Your task to perform on an android device: Go to ESPN.com Image 0: 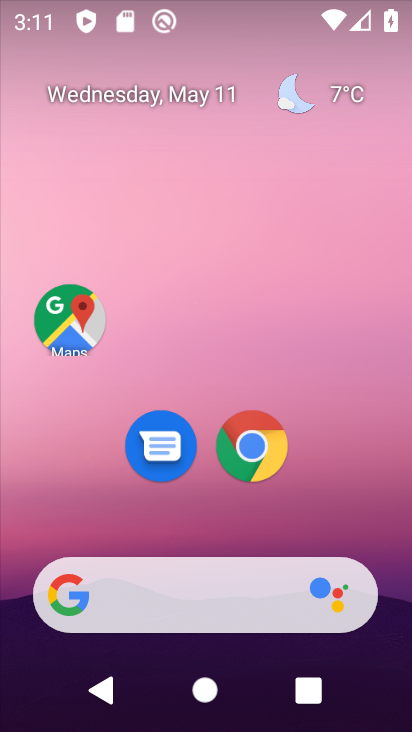
Step 0: drag from (298, 264) to (226, 68)
Your task to perform on an android device: Go to ESPN.com Image 1: 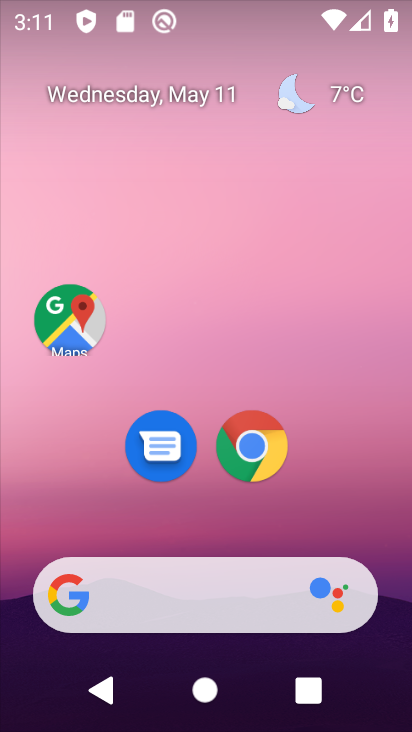
Step 1: drag from (341, 479) to (264, 249)
Your task to perform on an android device: Go to ESPN.com Image 2: 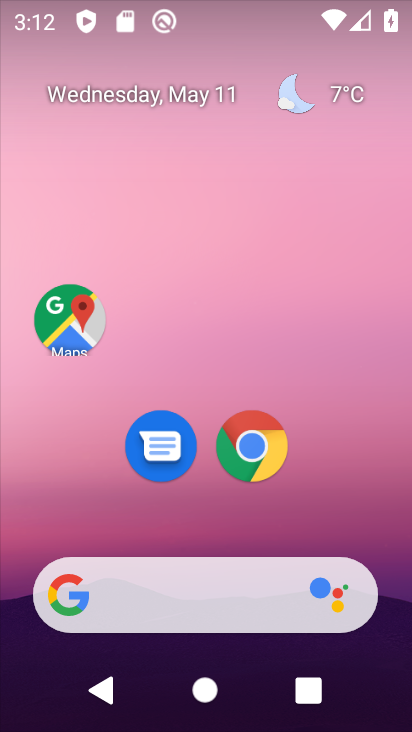
Step 2: drag from (368, 551) to (213, 85)
Your task to perform on an android device: Go to ESPN.com Image 3: 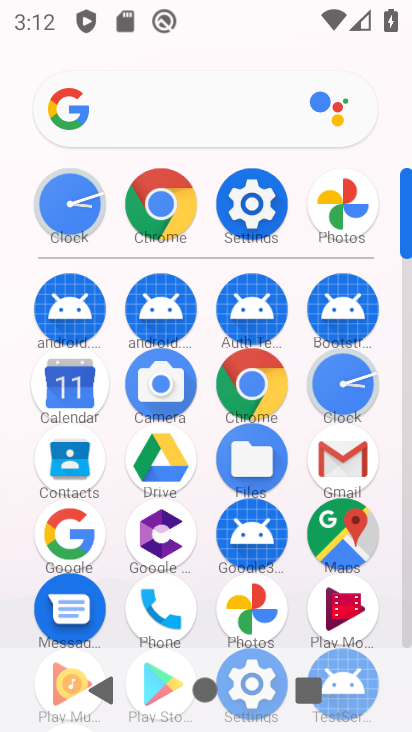
Step 3: click (143, 214)
Your task to perform on an android device: Go to ESPN.com Image 4: 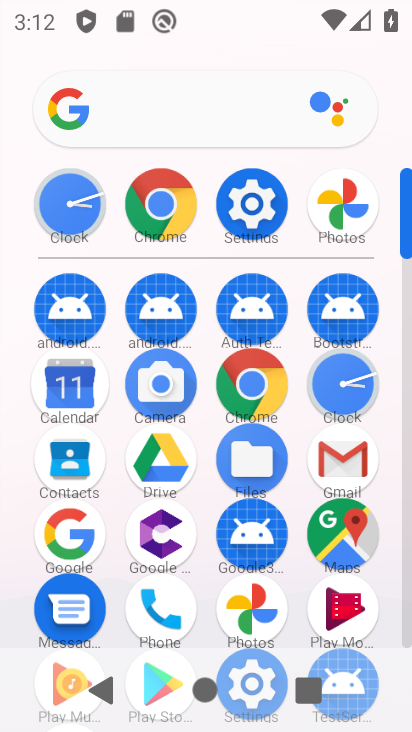
Step 4: click (143, 214)
Your task to perform on an android device: Go to ESPN.com Image 5: 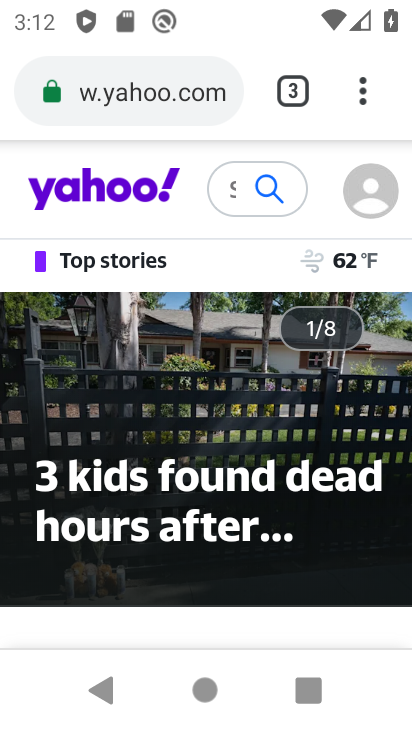
Step 5: click (360, 83)
Your task to perform on an android device: Go to ESPN.com Image 6: 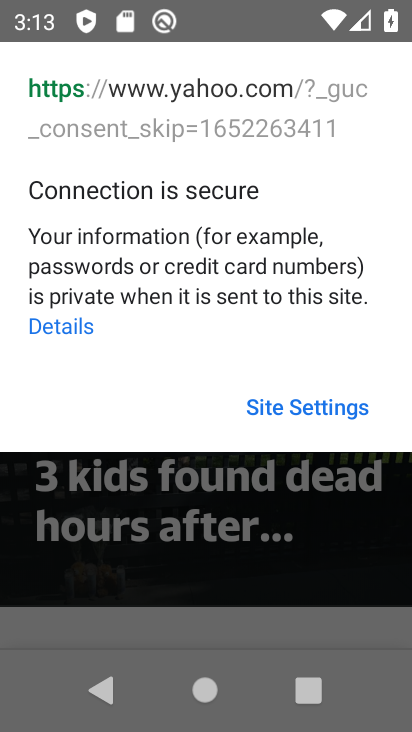
Step 6: press home button
Your task to perform on an android device: Go to ESPN.com Image 7: 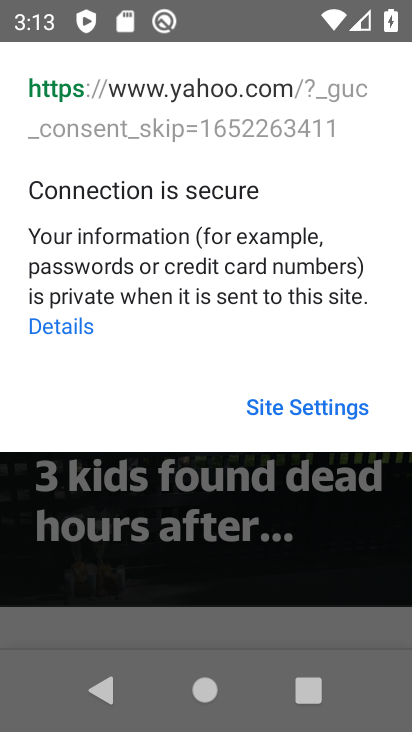
Step 7: press home button
Your task to perform on an android device: Go to ESPN.com Image 8: 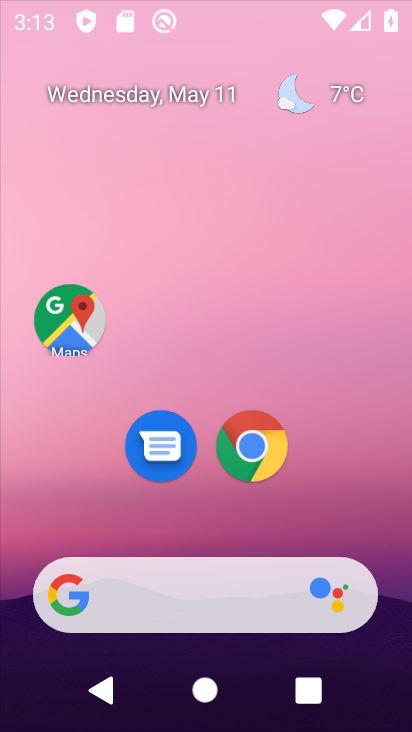
Step 8: press home button
Your task to perform on an android device: Go to ESPN.com Image 9: 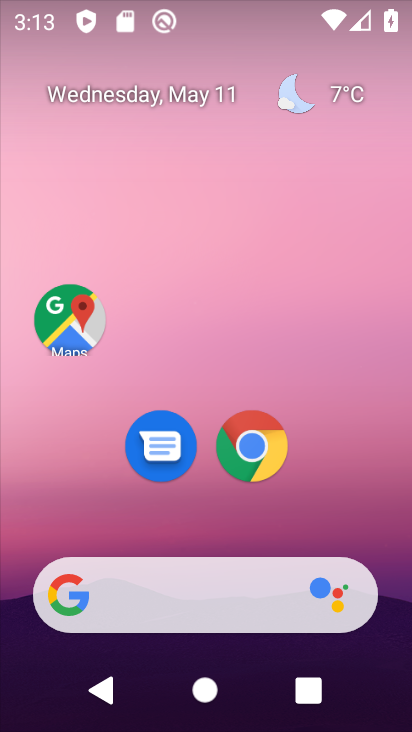
Step 9: click (115, 0)
Your task to perform on an android device: Go to ESPN.com Image 10: 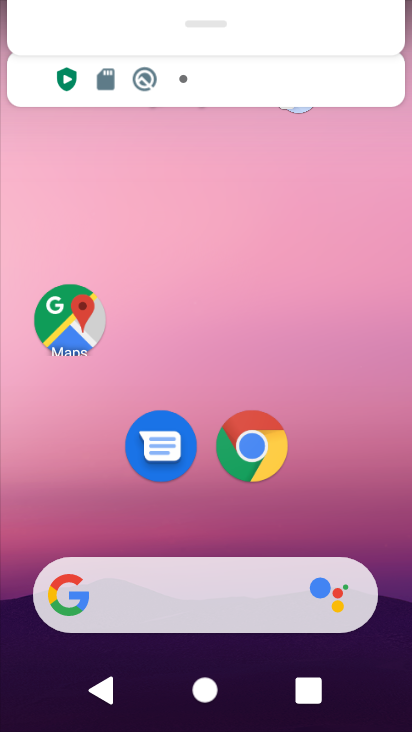
Step 10: drag from (293, 463) to (112, 81)
Your task to perform on an android device: Go to ESPN.com Image 11: 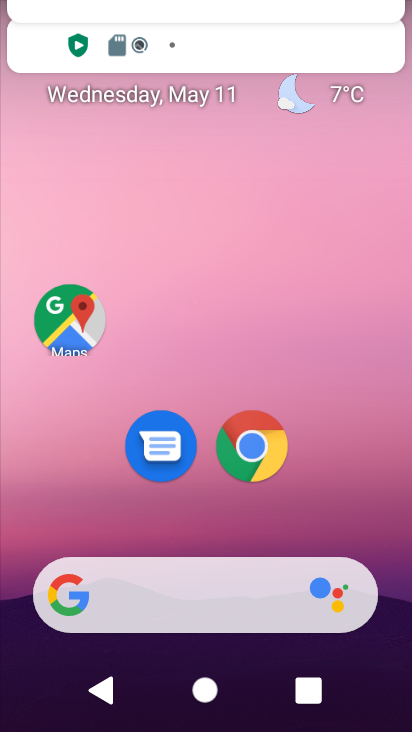
Step 11: drag from (276, 451) to (138, 165)
Your task to perform on an android device: Go to ESPN.com Image 12: 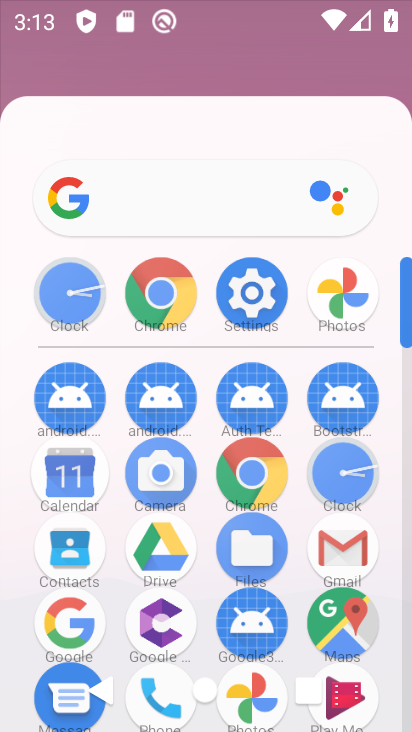
Step 12: drag from (336, 465) to (126, 100)
Your task to perform on an android device: Go to ESPN.com Image 13: 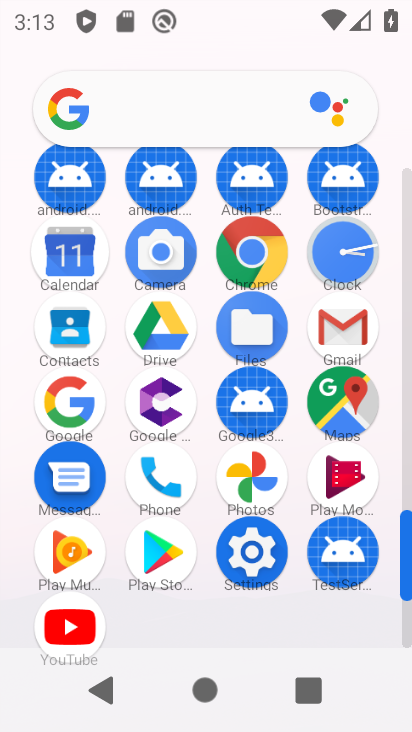
Step 13: click (240, 256)
Your task to perform on an android device: Go to ESPN.com Image 14: 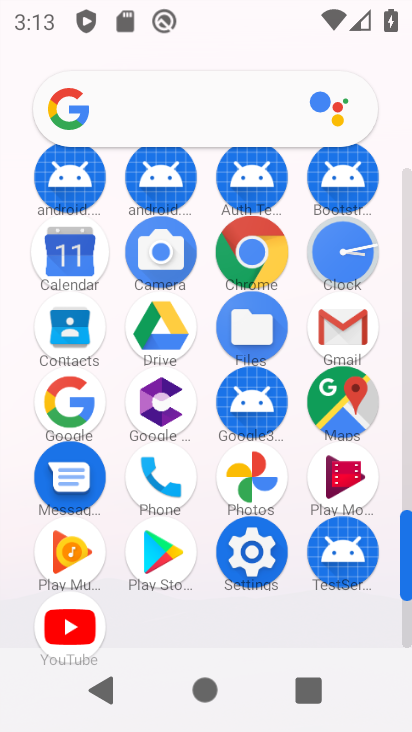
Step 14: click (239, 253)
Your task to perform on an android device: Go to ESPN.com Image 15: 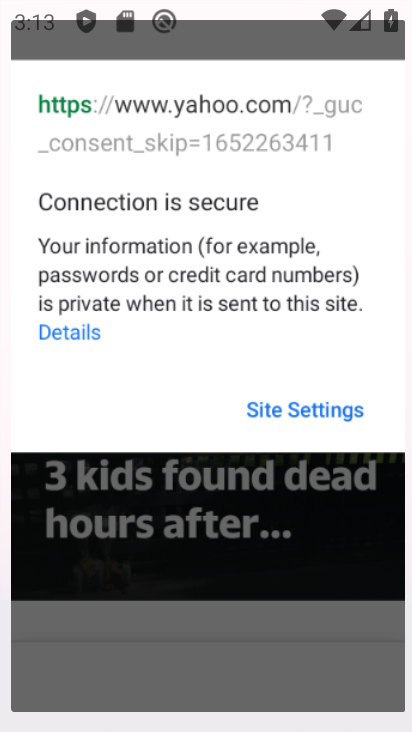
Step 15: click (239, 253)
Your task to perform on an android device: Go to ESPN.com Image 16: 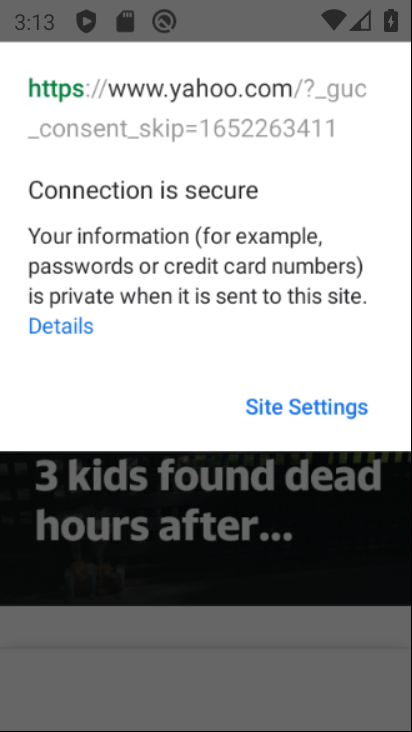
Step 16: click (239, 253)
Your task to perform on an android device: Go to ESPN.com Image 17: 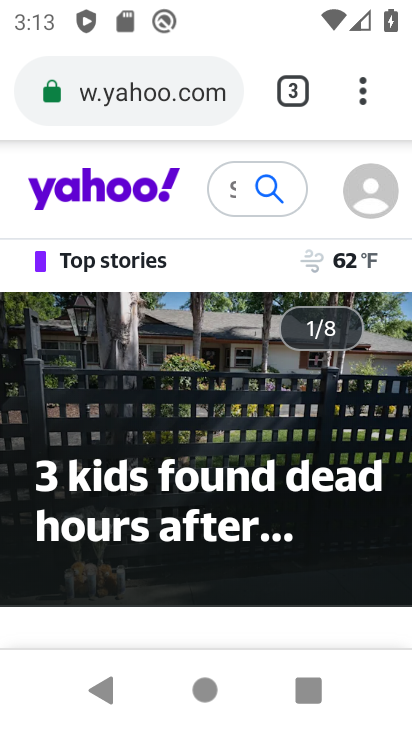
Step 17: drag from (261, 462) to (212, 135)
Your task to perform on an android device: Go to ESPN.com Image 18: 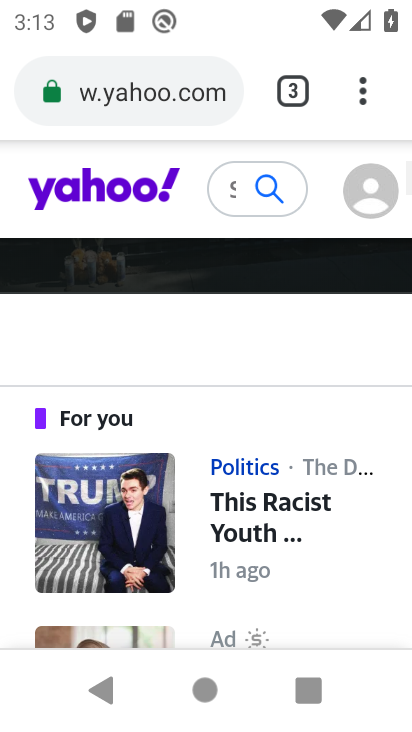
Step 18: drag from (358, 97) to (102, 178)
Your task to perform on an android device: Go to ESPN.com Image 19: 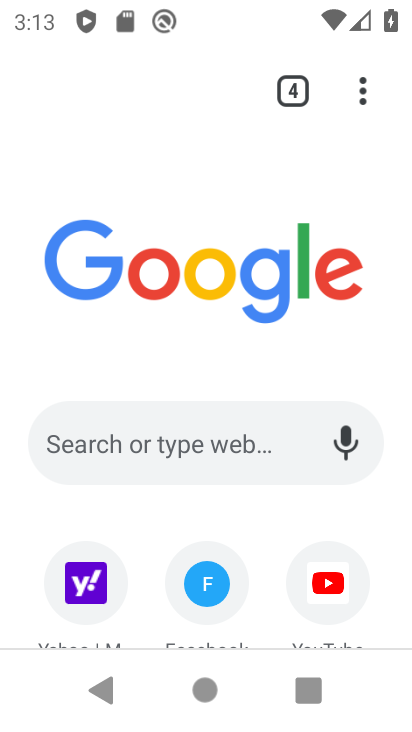
Step 19: drag from (290, 571) to (201, 84)
Your task to perform on an android device: Go to ESPN.com Image 20: 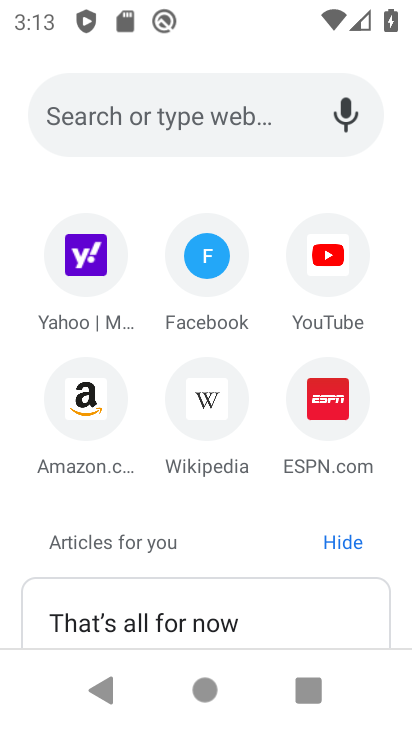
Step 20: click (322, 405)
Your task to perform on an android device: Go to ESPN.com Image 21: 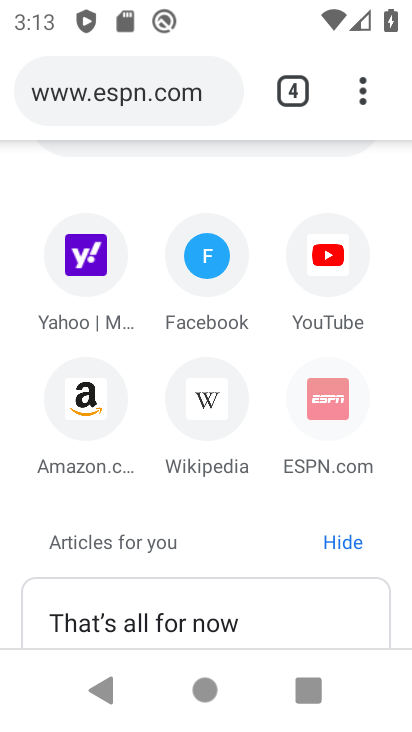
Step 21: click (322, 405)
Your task to perform on an android device: Go to ESPN.com Image 22: 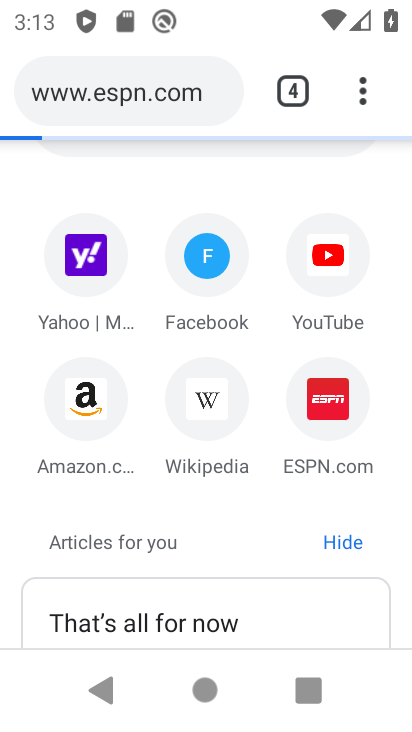
Step 22: click (322, 405)
Your task to perform on an android device: Go to ESPN.com Image 23: 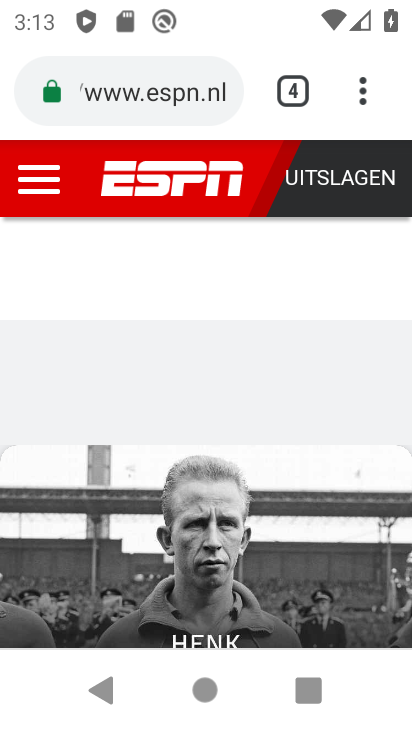
Step 23: task complete